Your task to perform on an android device: turn off notifications settings in the gmail app Image 0: 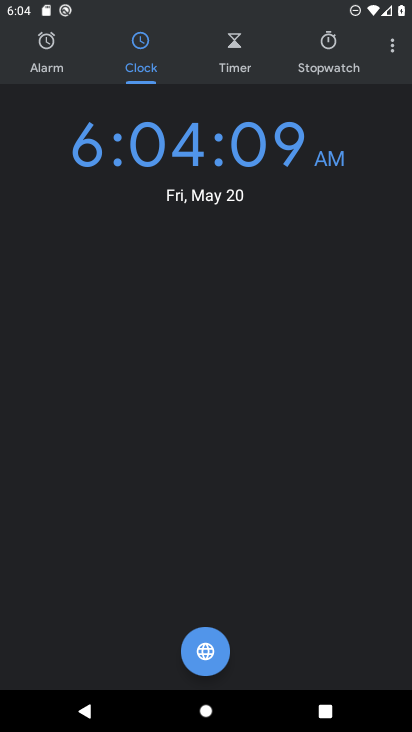
Step 0: press home button
Your task to perform on an android device: turn off notifications settings in the gmail app Image 1: 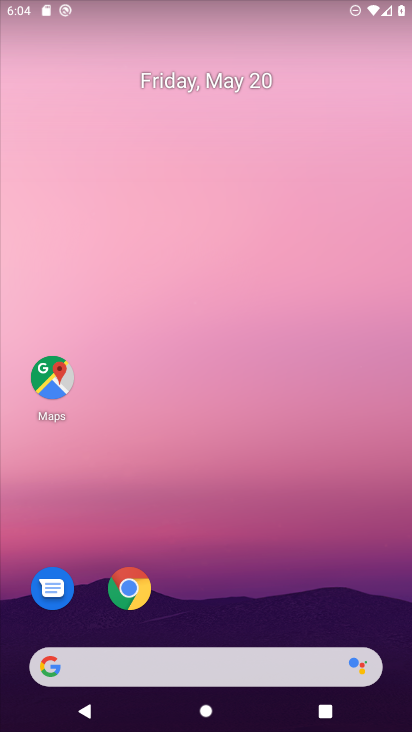
Step 1: drag from (173, 600) to (224, 11)
Your task to perform on an android device: turn off notifications settings in the gmail app Image 2: 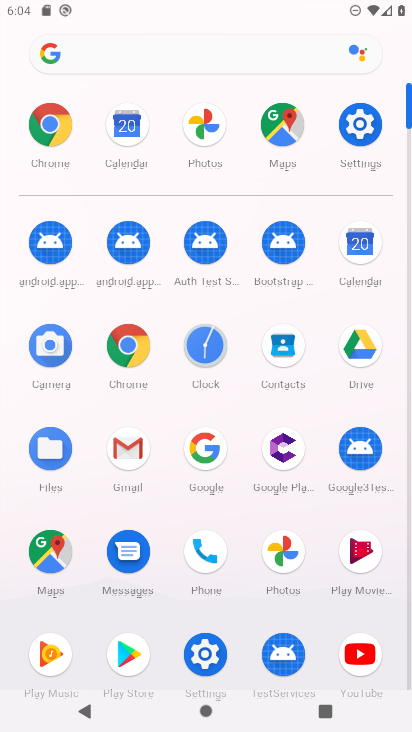
Step 2: click (127, 465)
Your task to perform on an android device: turn off notifications settings in the gmail app Image 3: 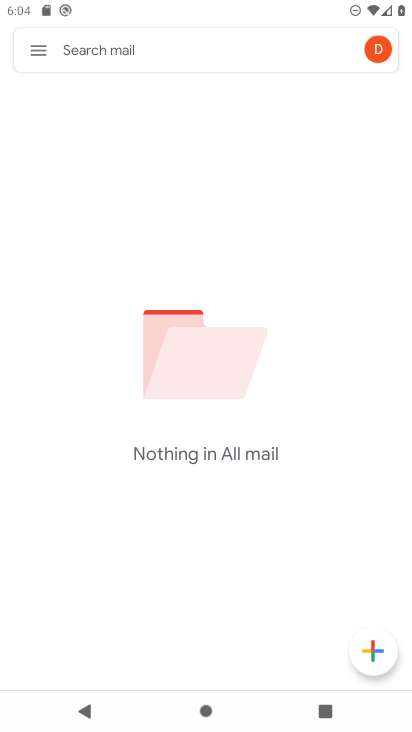
Step 3: click (32, 55)
Your task to perform on an android device: turn off notifications settings in the gmail app Image 4: 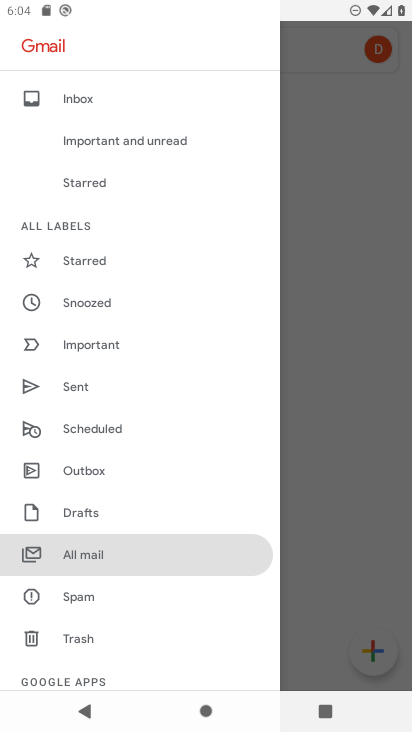
Step 4: drag from (98, 626) to (138, 311)
Your task to perform on an android device: turn off notifications settings in the gmail app Image 5: 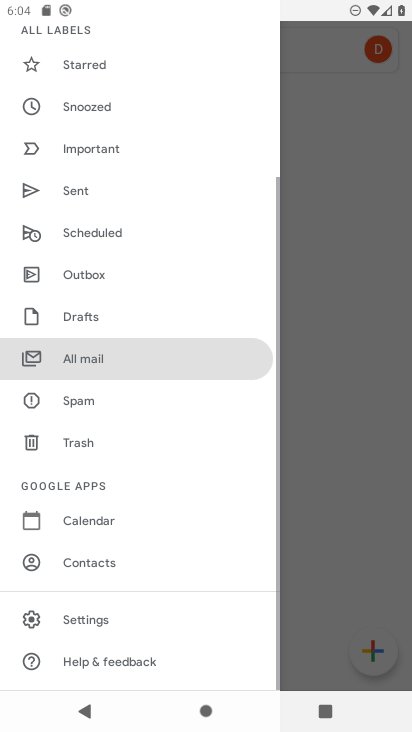
Step 5: click (67, 612)
Your task to perform on an android device: turn off notifications settings in the gmail app Image 6: 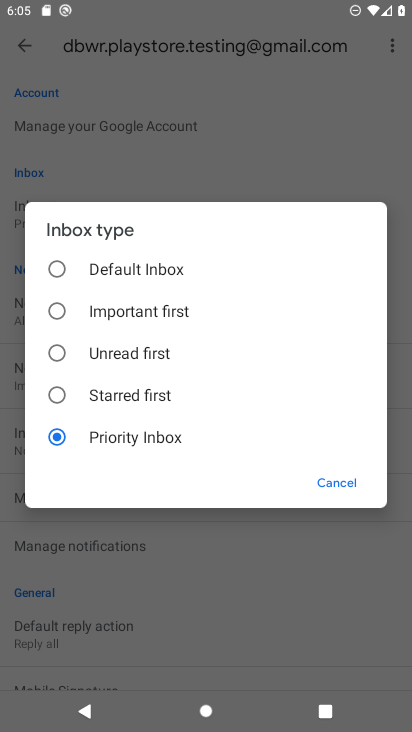
Step 6: press home button
Your task to perform on an android device: turn off notifications settings in the gmail app Image 7: 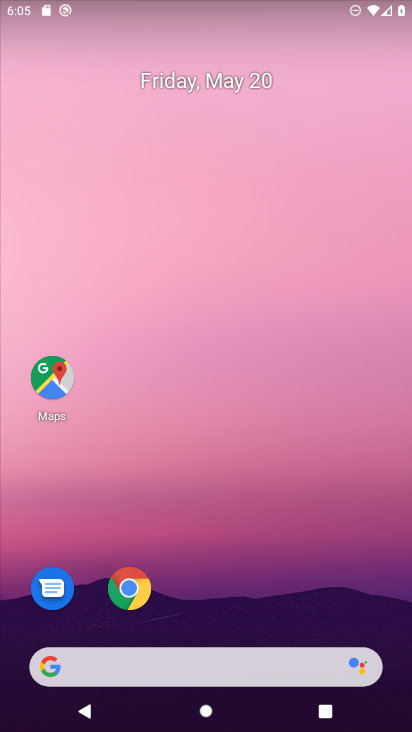
Step 7: drag from (230, 629) to (223, 68)
Your task to perform on an android device: turn off notifications settings in the gmail app Image 8: 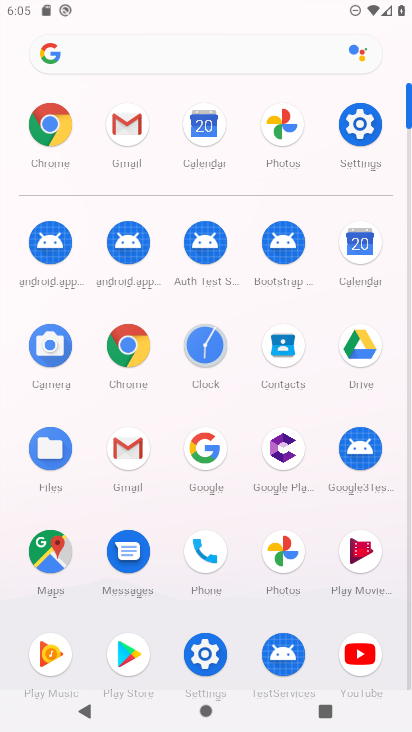
Step 8: click (353, 137)
Your task to perform on an android device: turn off notifications settings in the gmail app Image 9: 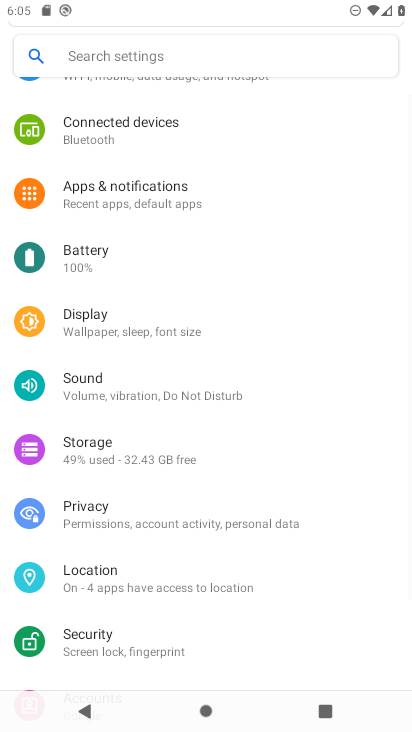
Step 9: press home button
Your task to perform on an android device: turn off notifications settings in the gmail app Image 10: 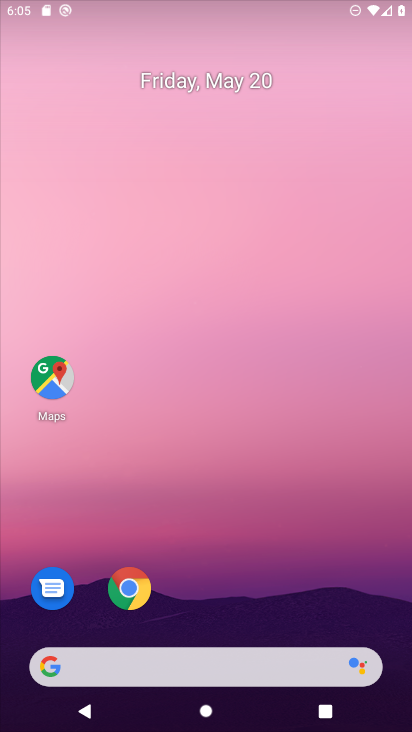
Step 10: drag from (216, 610) to (212, 264)
Your task to perform on an android device: turn off notifications settings in the gmail app Image 11: 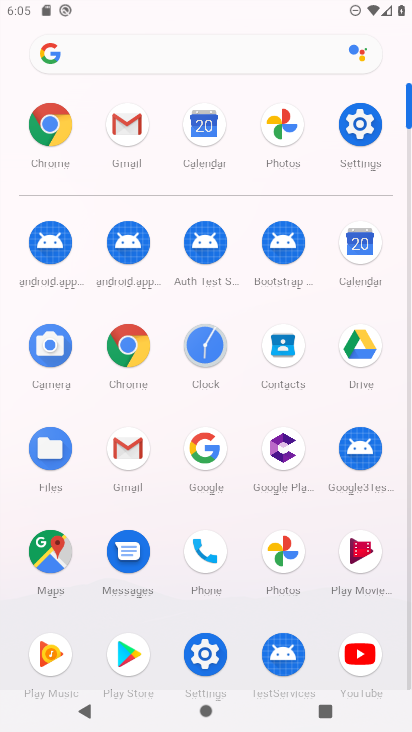
Step 11: click (122, 156)
Your task to perform on an android device: turn off notifications settings in the gmail app Image 12: 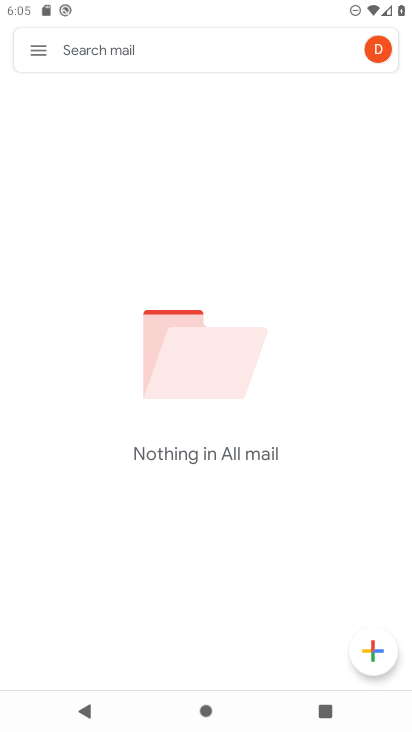
Step 12: click (33, 49)
Your task to perform on an android device: turn off notifications settings in the gmail app Image 13: 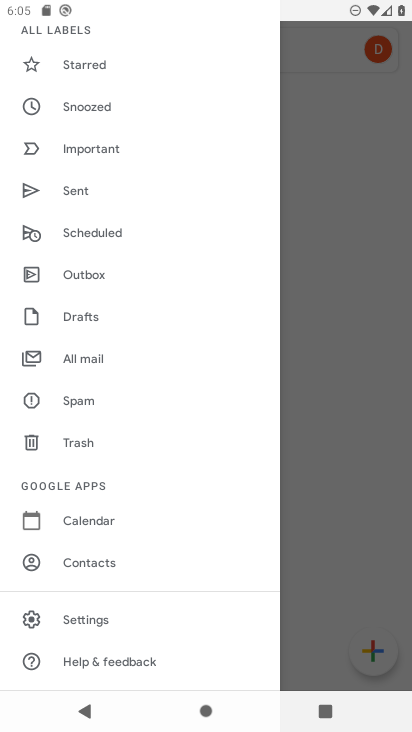
Step 13: click (68, 617)
Your task to perform on an android device: turn off notifications settings in the gmail app Image 14: 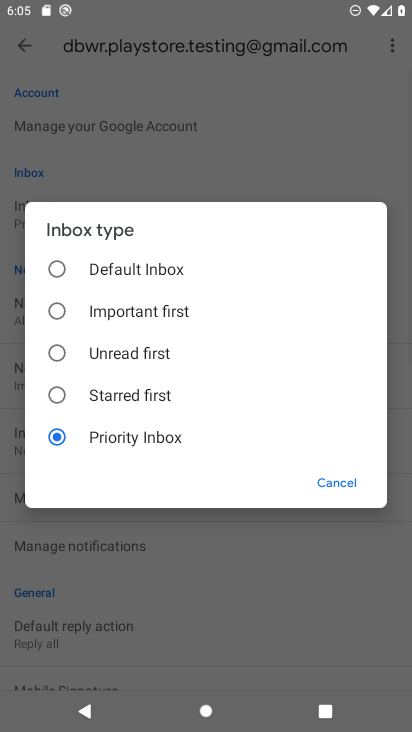
Step 14: click (346, 484)
Your task to perform on an android device: turn off notifications settings in the gmail app Image 15: 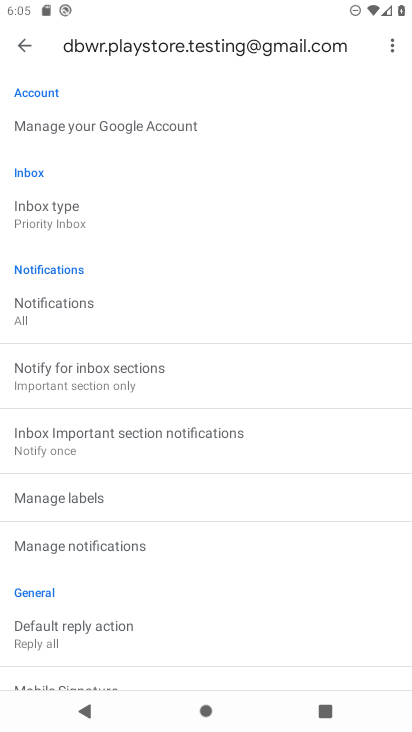
Step 15: click (46, 311)
Your task to perform on an android device: turn off notifications settings in the gmail app Image 16: 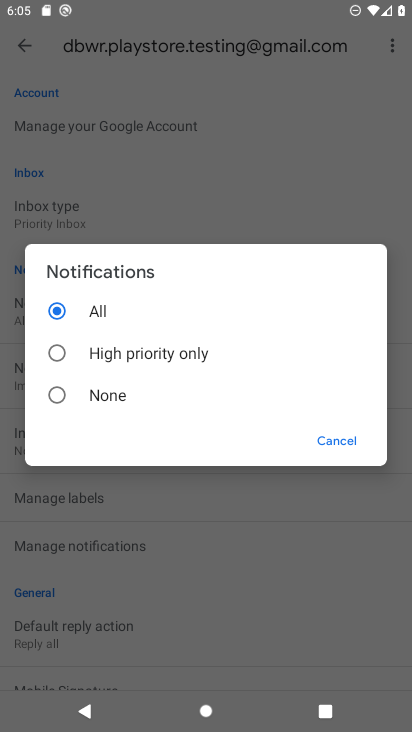
Step 16: click (52, 413)
Your task to perform on an android device: turn off notifications settings in the gmail app Image 17: 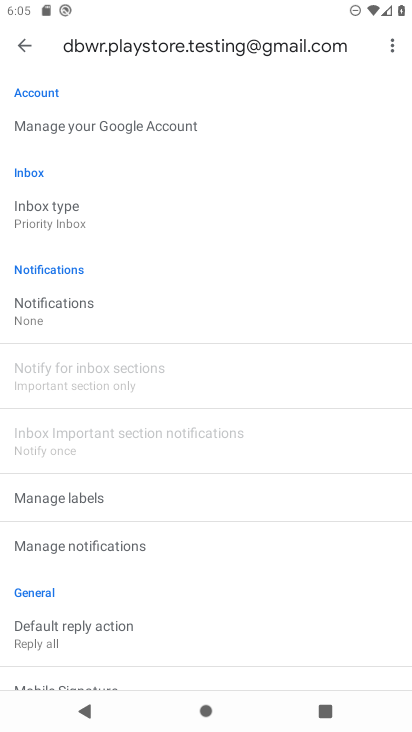
Step 17: task complete